Your task to perform on an android device: Go to Amazon Image 0: 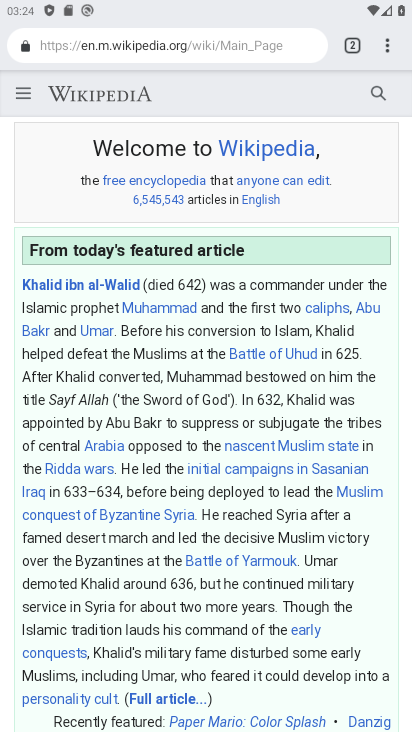
Step 0: drag from (385, 46) to (307, 153)
Your task to perform on an android device: Go to Amazon Image 1: 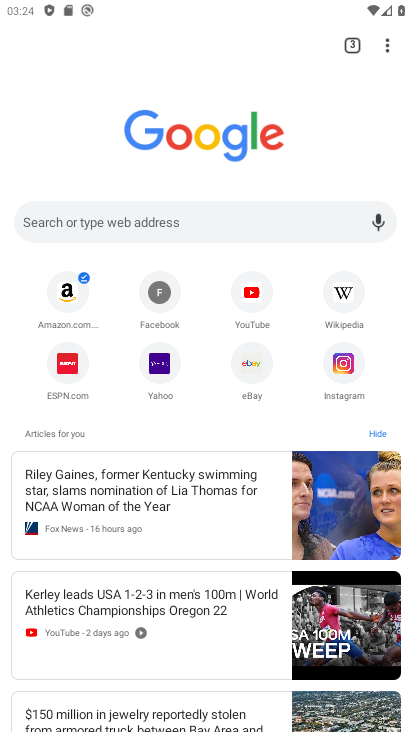
Step 1: click (70, 295)
Your task to perform on an android device: Go to Amazon Image 2: 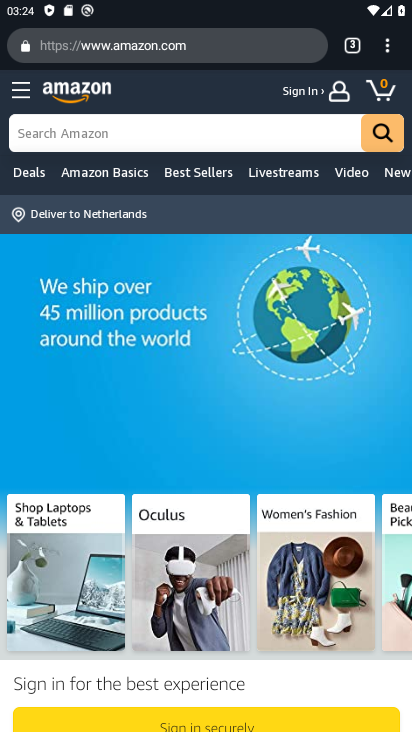
Step 2: task complete